Your task to perform on an android device: open sync settings in chrome Image 0: 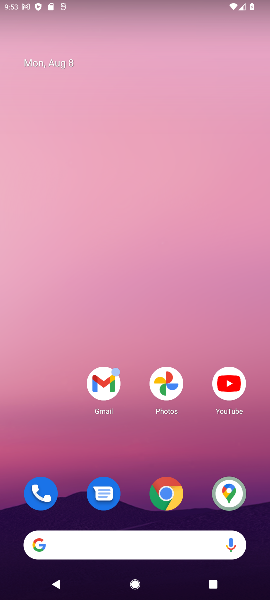
Step 0: click (162, 502)
Your task to perform on an android device: open sync settings in chrome Image 1: 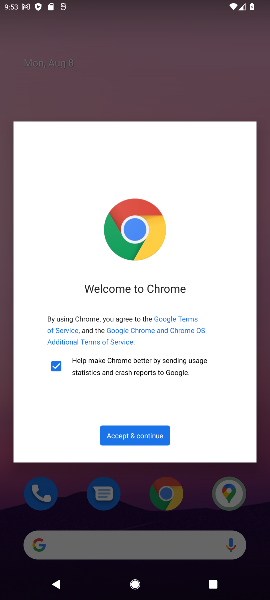
Step 1: click (139, 432)
Your task to perform on an android device: open sync settings in chrome Image 2: 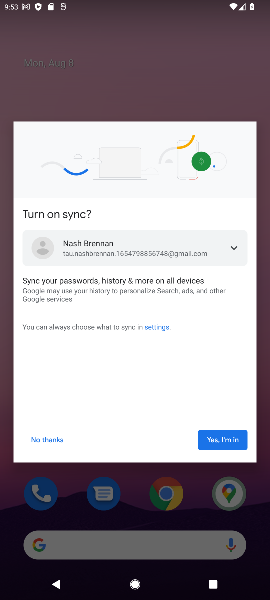
Step 2: click (236, 444)
Your task to perform on an android device: open sync settings in chrome Image 3: 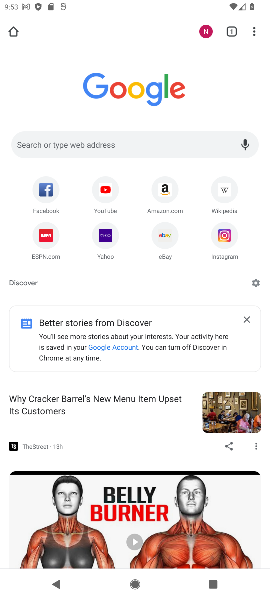
Step 3: drag from (254, 26) to (177, 261)
Your task to perform on an android device: open sync settings in chrome Image 4: 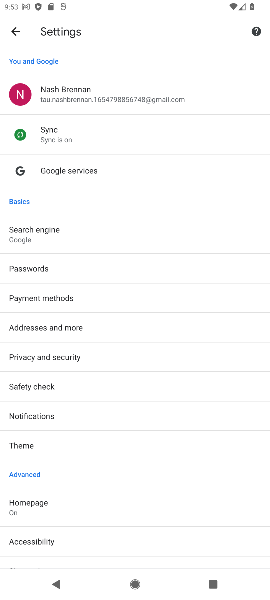
Step 4: click (72, 128)
Your task to perform on an android device: open sync settings in chrome Image 5: 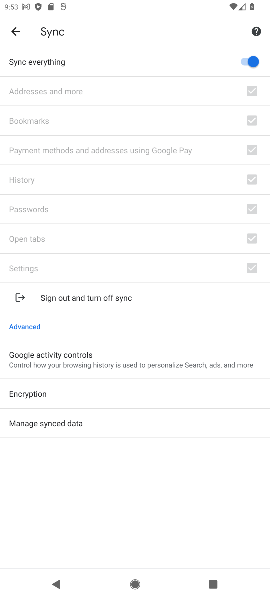
Step 5: task complete